Your task to perform on an android device: Open maps Image 0: 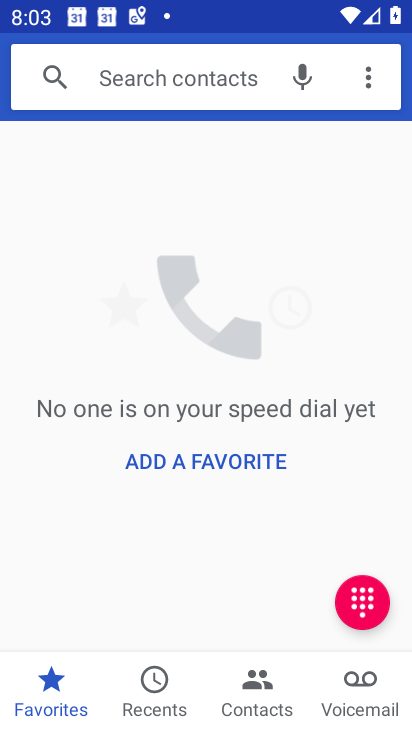
Step 0: press home button
Your task to perform on an android device: Open maps Image 1: 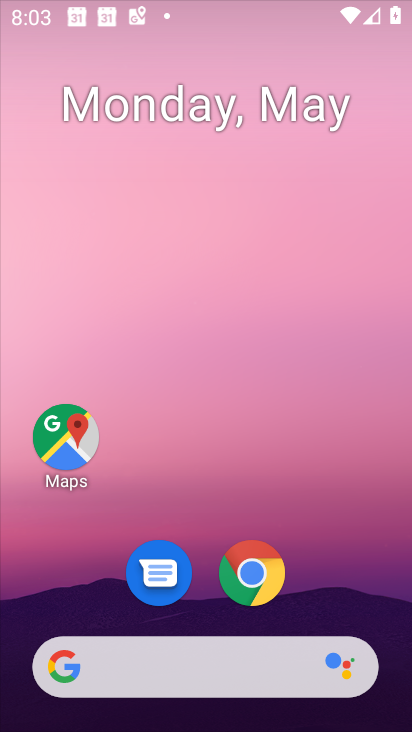
Step 1: drag from (198, 671) to (405, 189)
Your task to perform on an android device: Open maps Image 2: 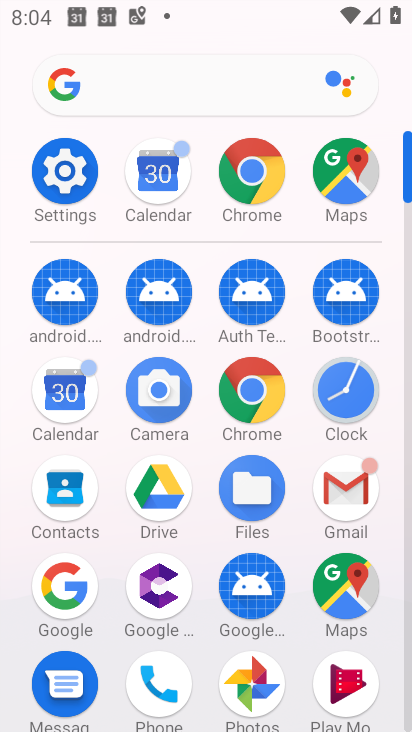
Step 2: click (357, 193)
Your task to perform on an android device: Open maps Image 3: 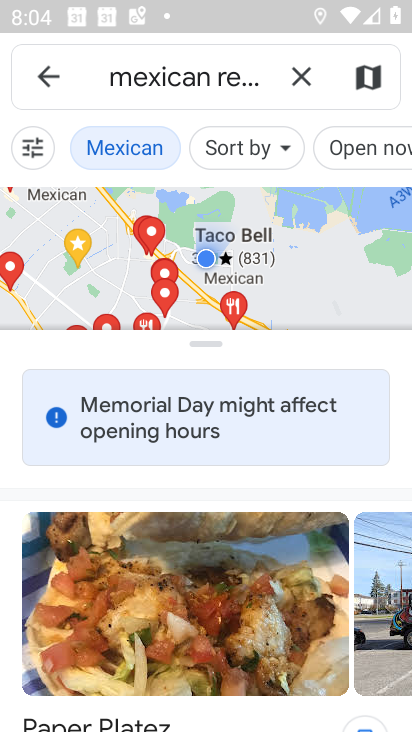
Step 3: task complete